Your task to perform on an android device: Add razer huntsman to the cart on bestbuy.com, then select checkout. Image 0: 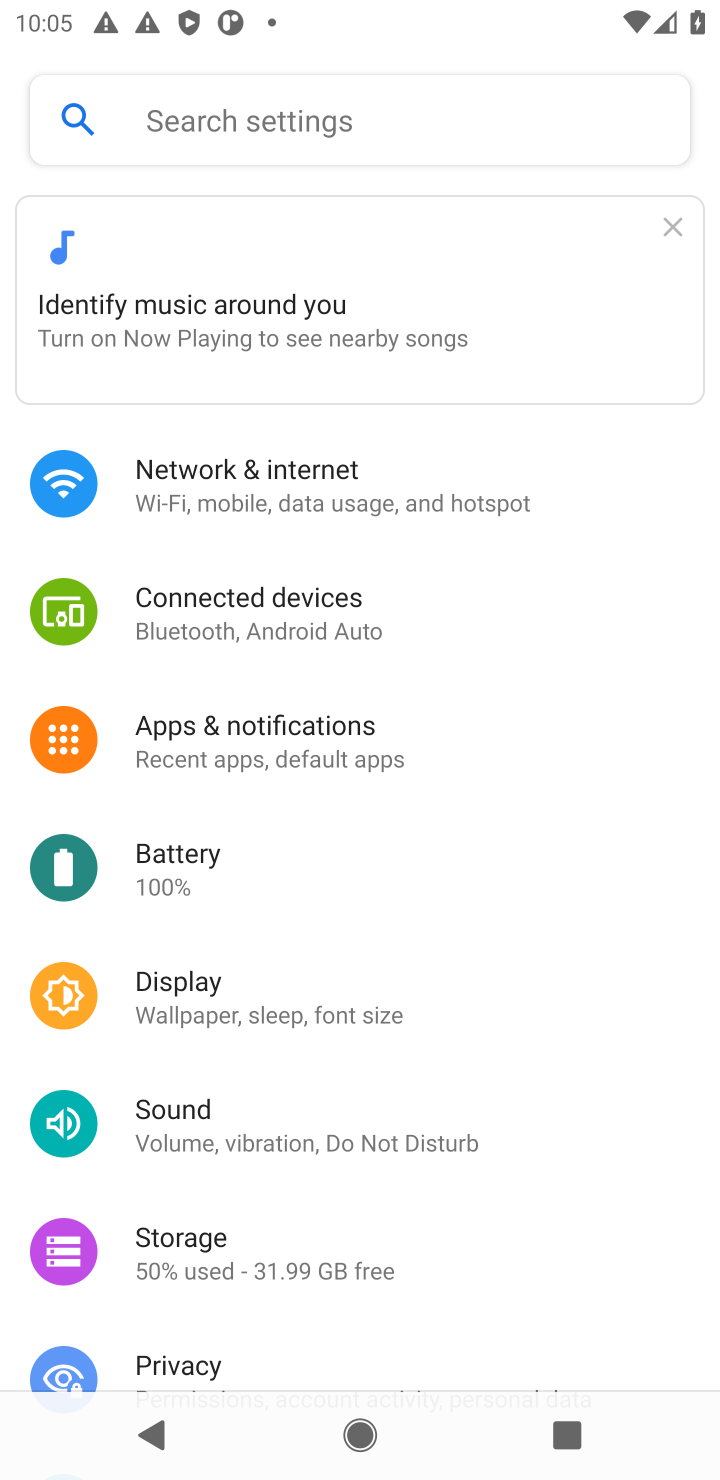
Step 0: press home button
Your task to perform on an android device: Add razer huntsman to the cart on bestbuy.com, then select checkout. Image 1: 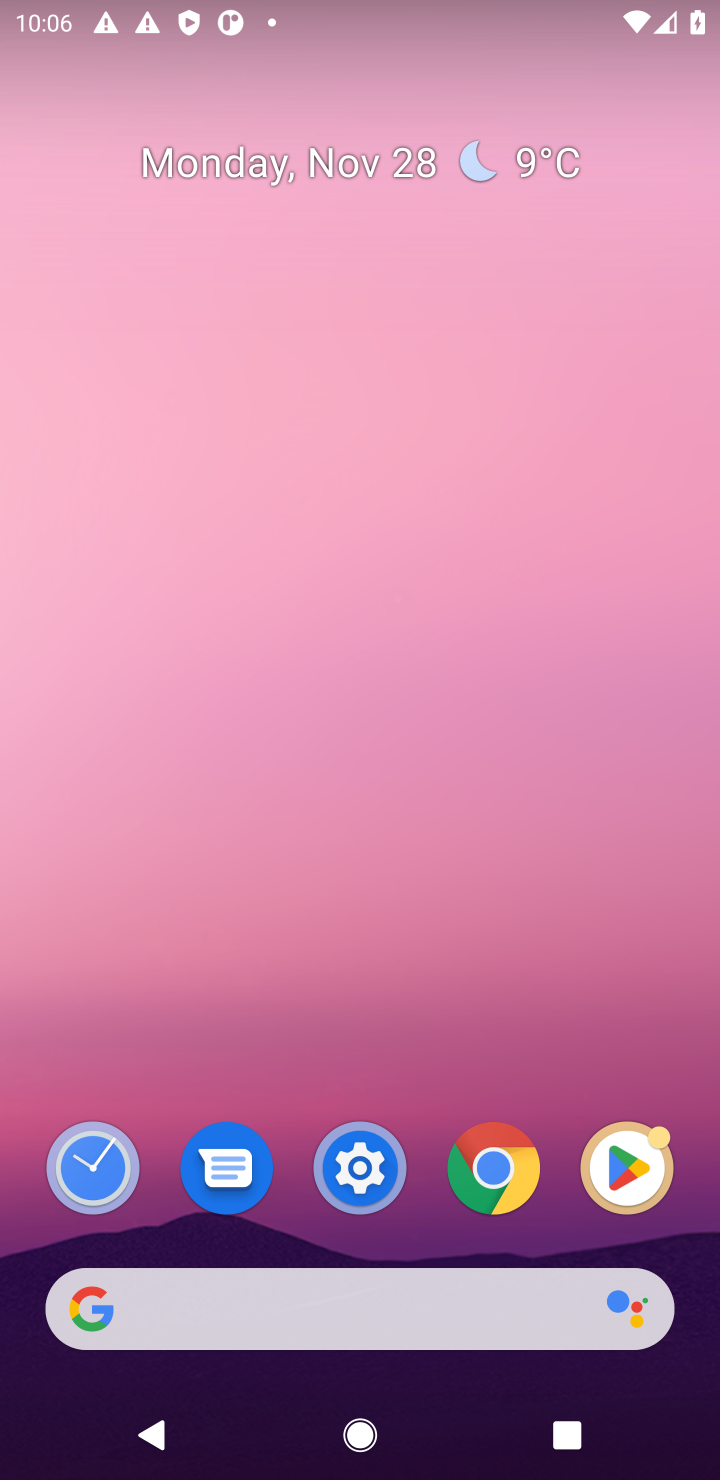
Step 1: click (436, 1317)
Your task to perform on an android device: Add razer huntsman to the cart on bestbuy.com, then select checkout. Image 2: 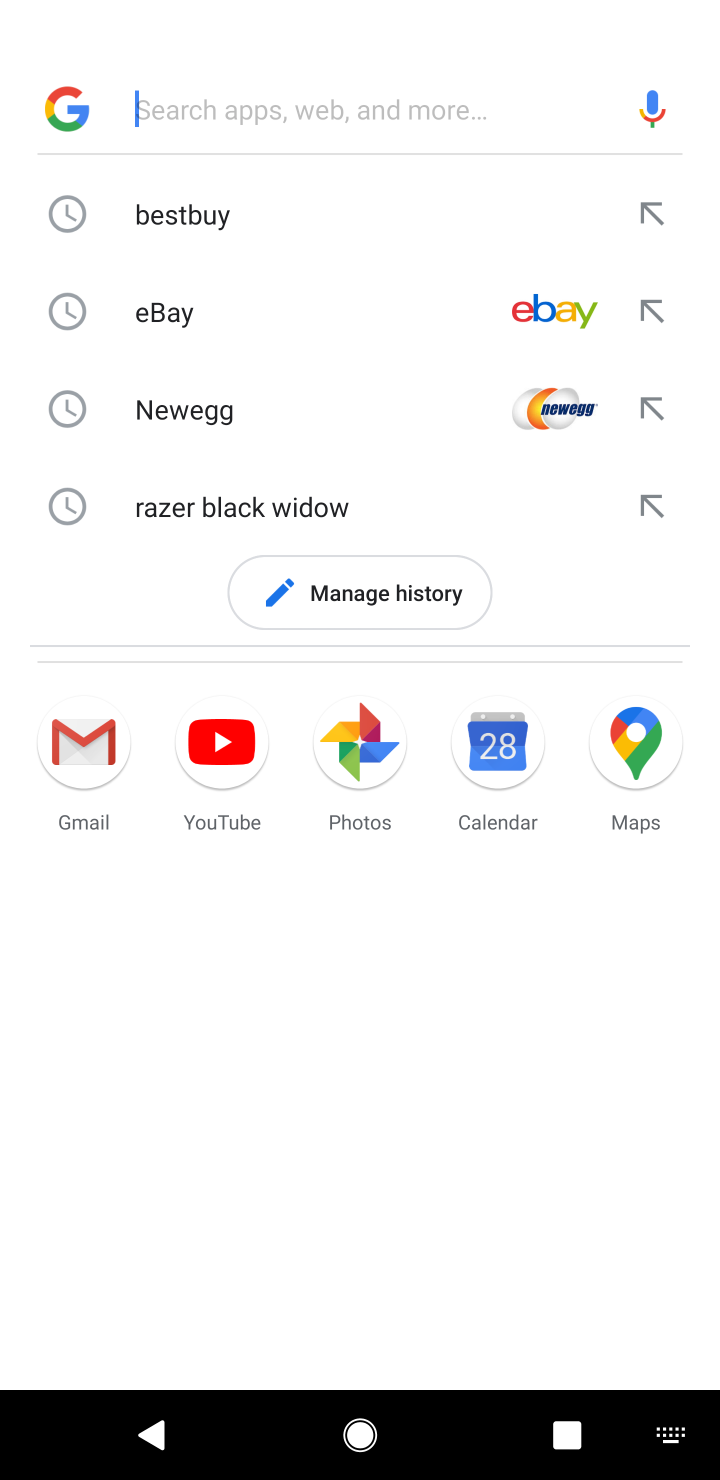
Step 2: type "bestbuy"
Your task to perform on an android device: Add razer huntsman to the cart on bestbuy.com, then select checkout. Image 3: 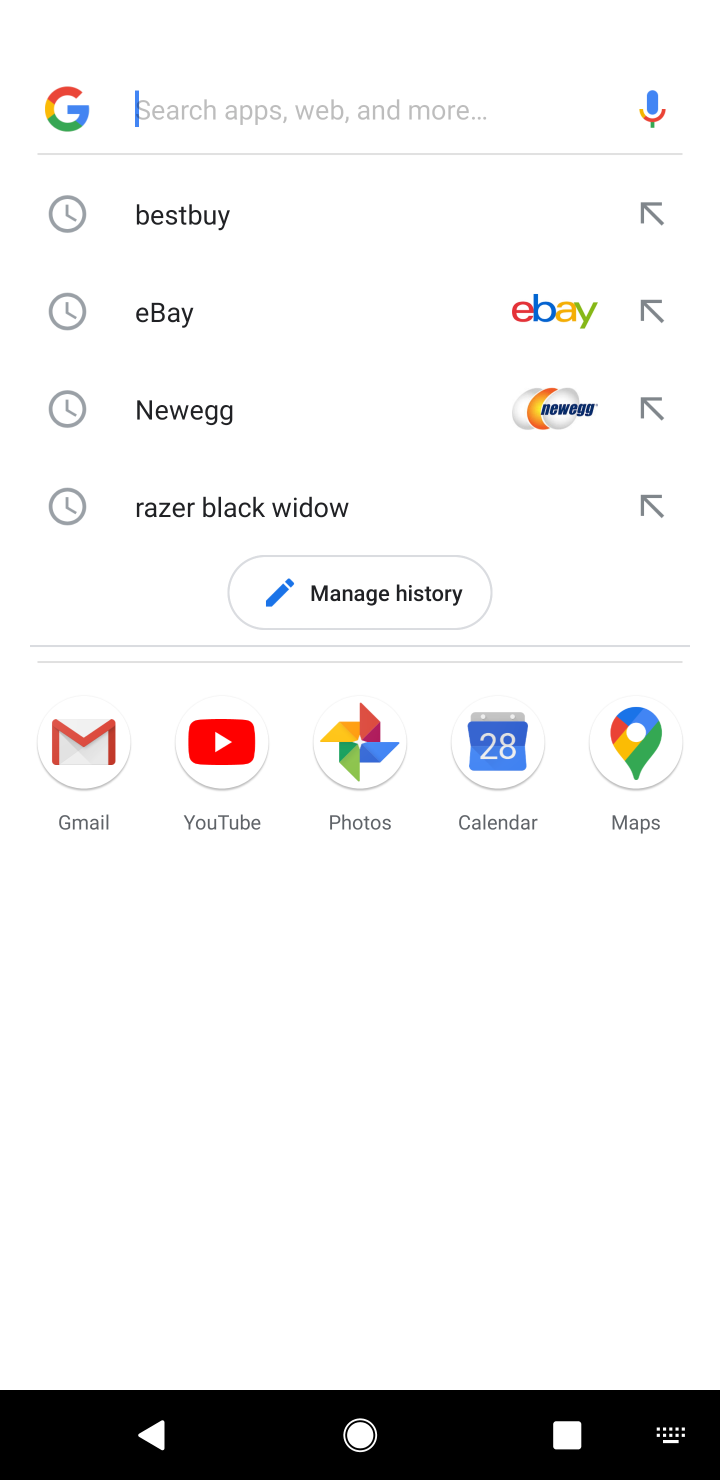
Step 3: click (210, 241)
Your task to perform on an android device: Add razer huntsman to the cart on bestbuy.com, then select checkout. Image 4: 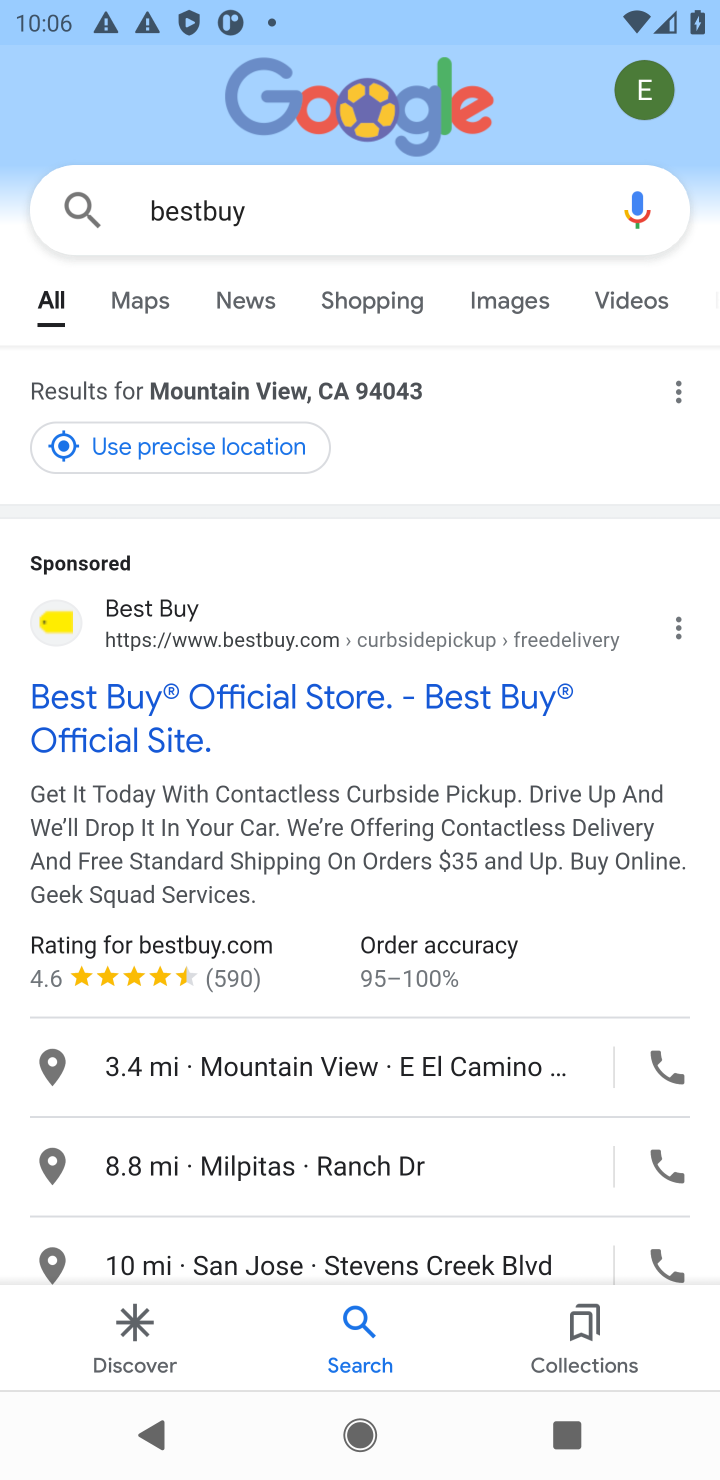
Step 4: click (167, 742)
Your task to perform on an android device: Add razer huntsman to the cart on bestbuy.com, then select checkout. Image 5: 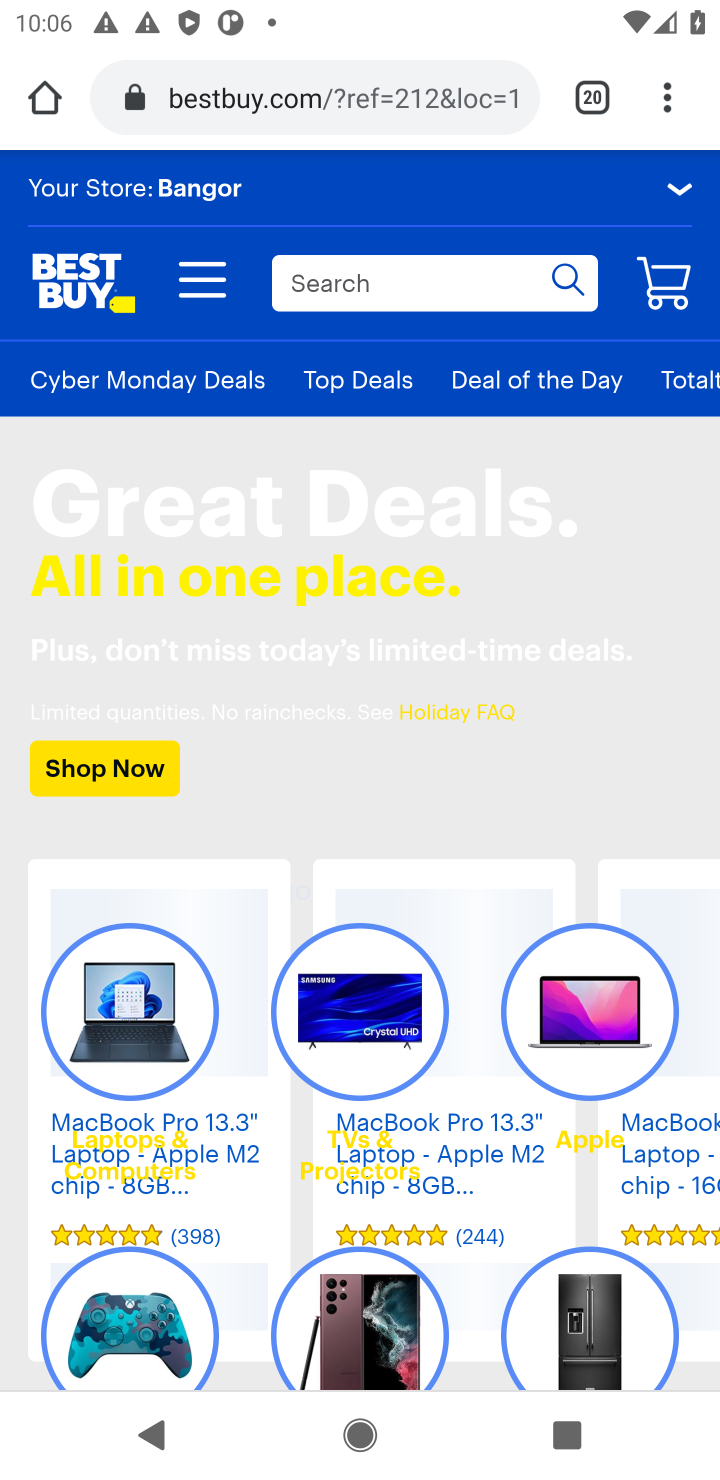
Step 5: click (355, 282)
Your task to perform on an android device: Add razer huntsman to the cart on bestbuy.com, then select checkout. Image 6: 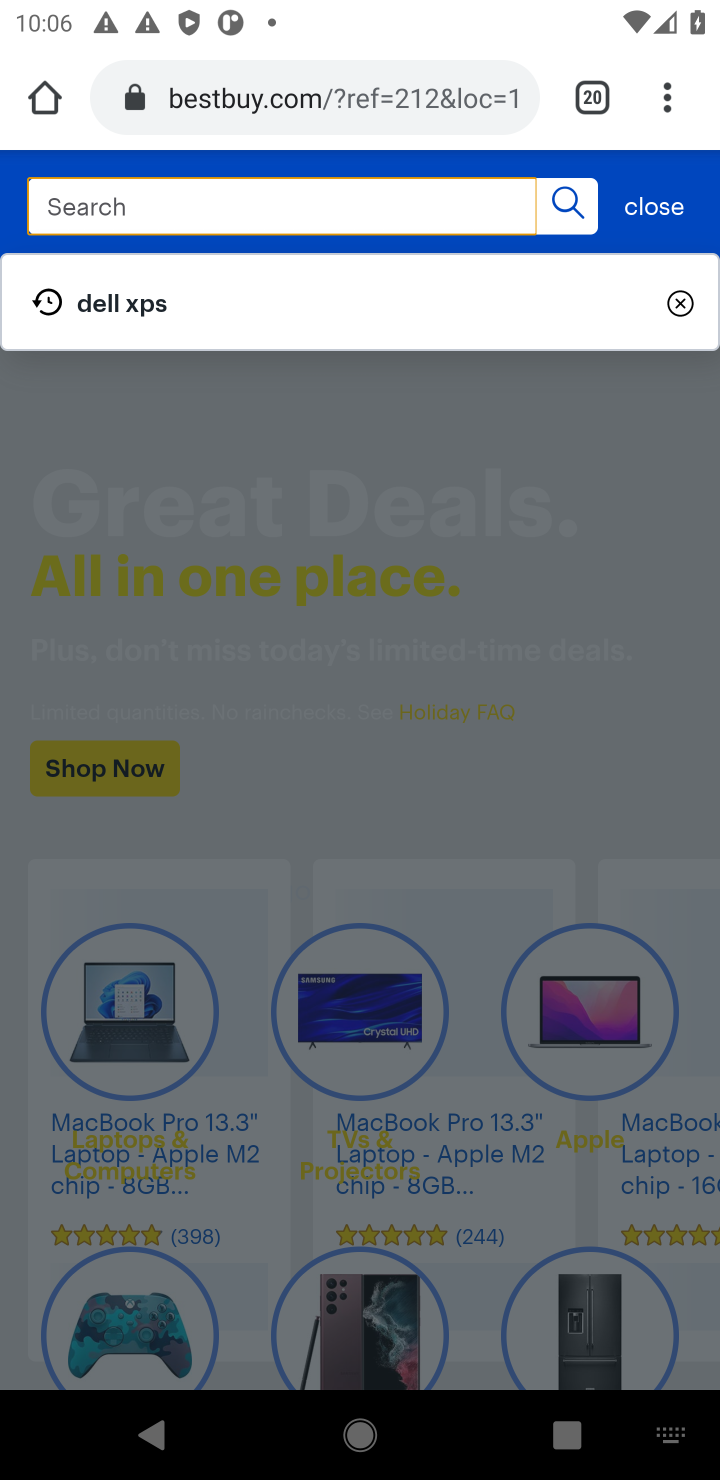
Step 6: type "razer huntsman"
Your task to perform on an android device: Add razer huntsman to the cart on bestbuy.com, then select checkout. Image 7: 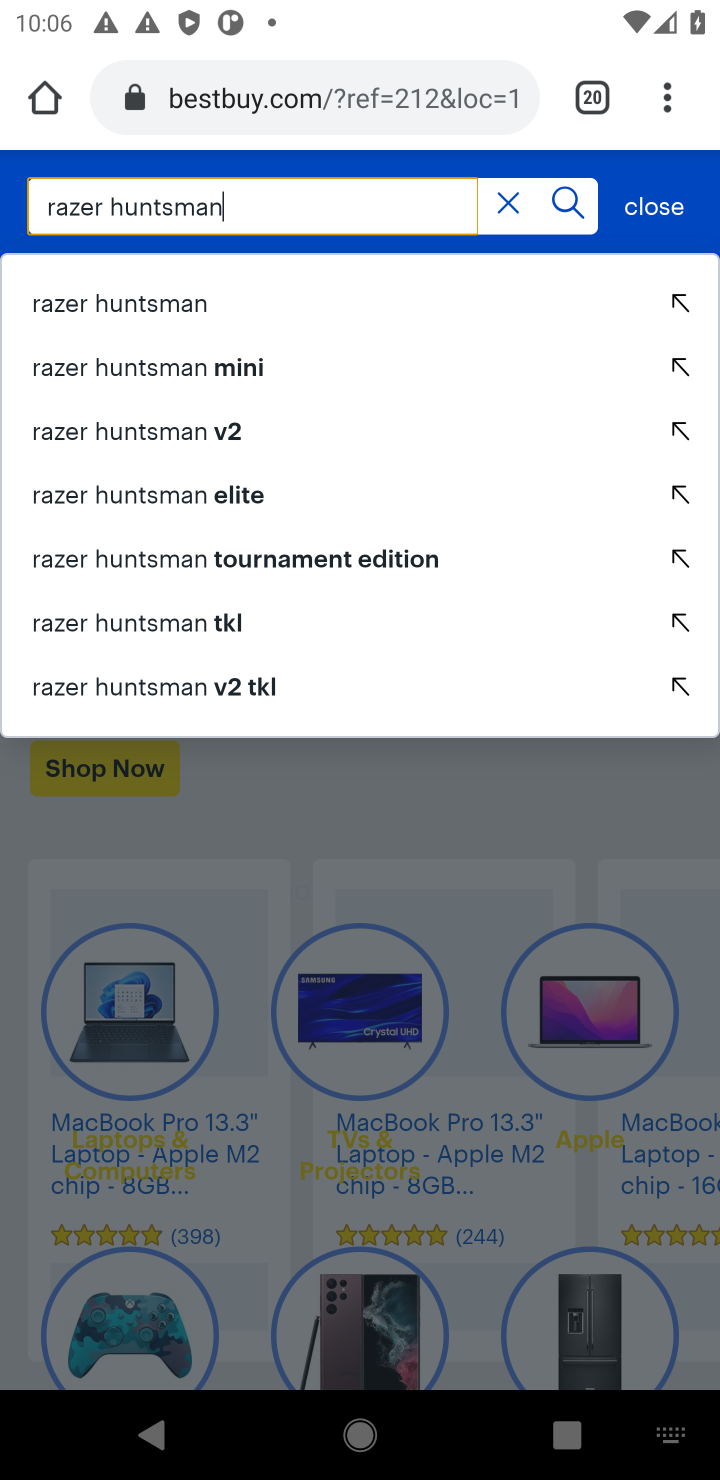
Step 7: click (189, 321)
Your task to perform on an android device: Add razer huntsman to the cart on bestbuy.com, then select checkout. Image 8: 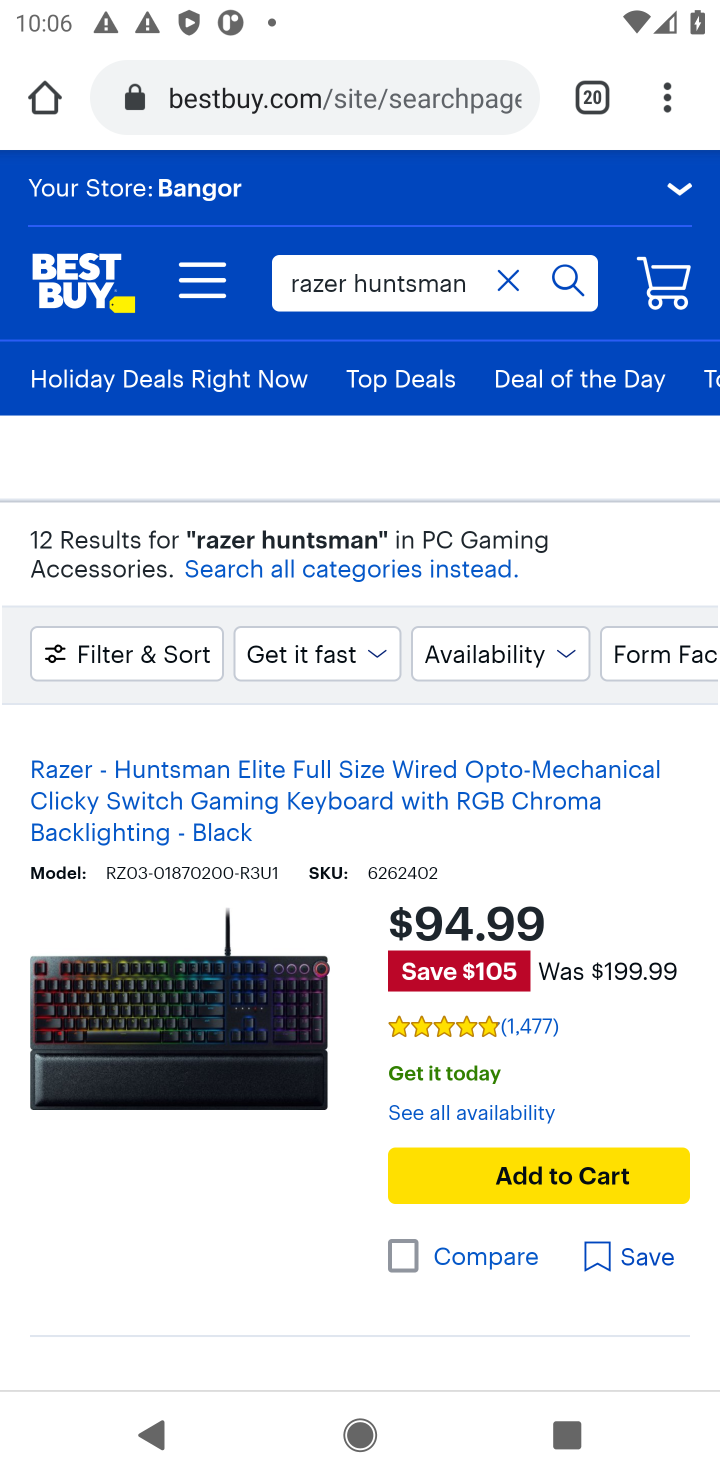
Step 8: task complete